Your task to perform on an android device: turn off translation in the chrome app Image 0: 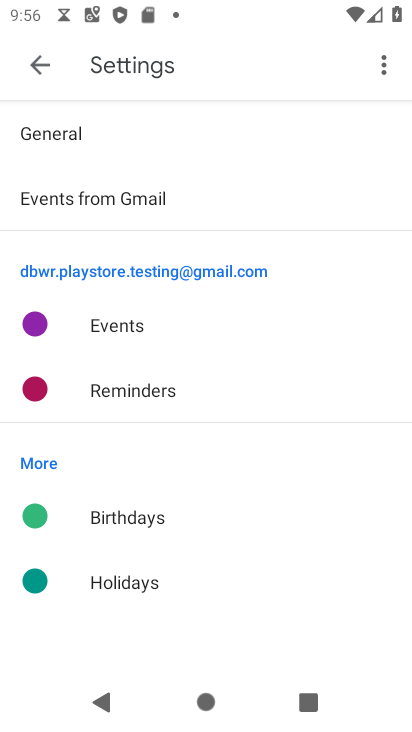
Step 0: press home button
Your task to perform on an android device: turn off translation in the chrome app Image 1: 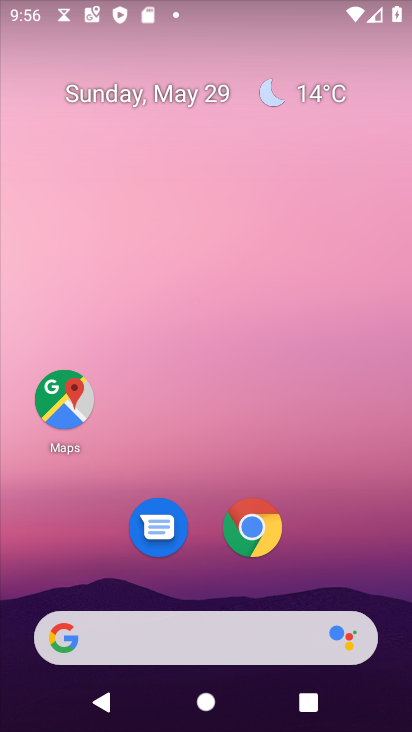
Step 1: click (260, 533)
Your task to perform on an android device: turn off translation in the chrome app Image 2: 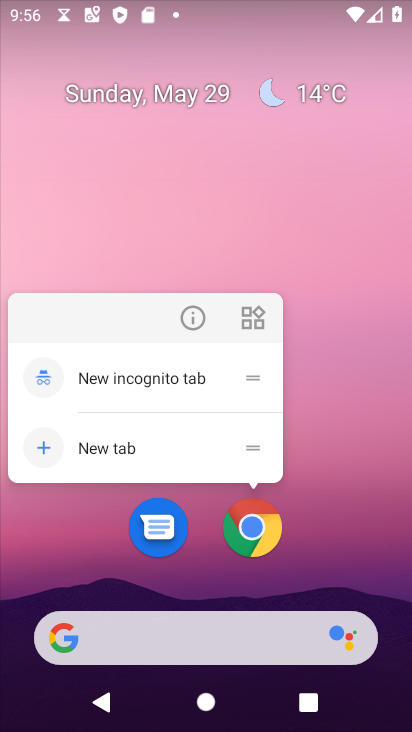
Step 2: click (251, 523)
Your task to perform on an android device: turn off translation in the chrome app Image 3: 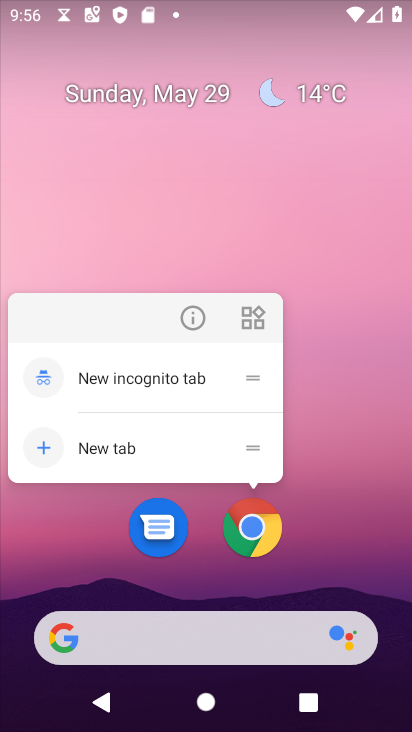
Step 3: click (252, 540)
Your task to perform on an android device: turn off translation in the chrome app Image 4: 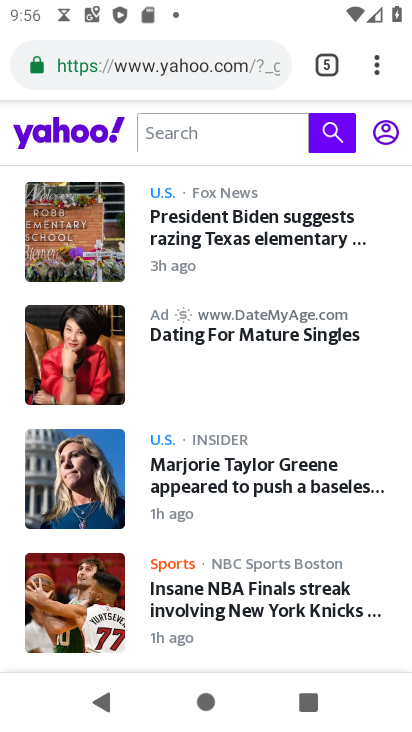
Step 4: drag from (371, 68) to (235, 591)
Your task to perform on an android device: turn off translation in the chrome app Image 5: 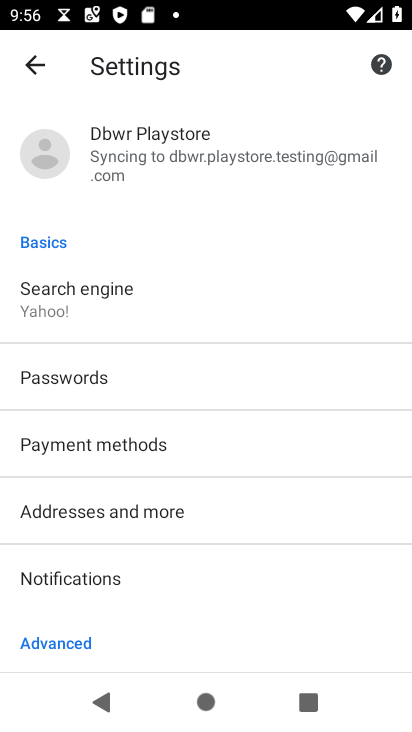
Step 5: drag from (169, 628) to (294, 135)
Your task to perform on an android device: turn off translation in the chrome app Image 6: 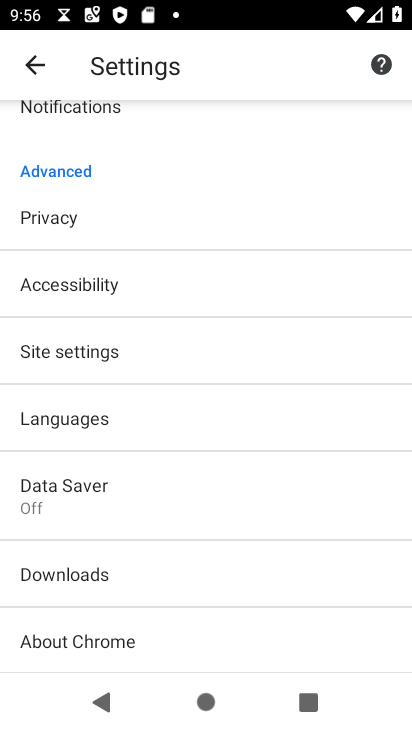
Step 6: click (100, 414)
Your task to perform on an android device: turn off translation in the chrome app Image 7: 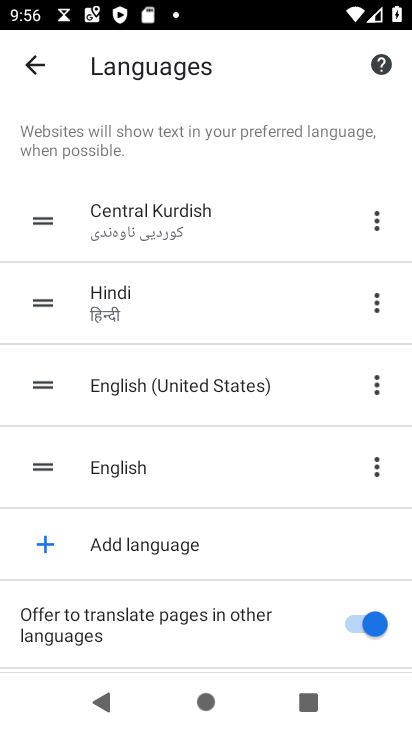
Step 7: click (342, 619)
Your task to perform on an android device: turn off translation in the chrome app Image 8: 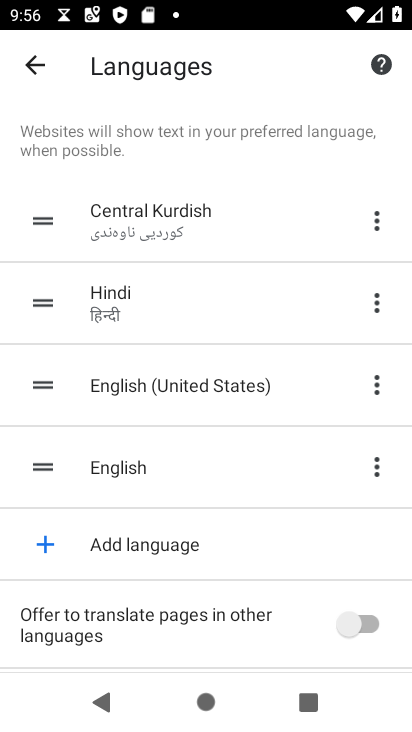
Step 8: task complete